Your task to perform on an android device: Open Reddit.com Image 0: 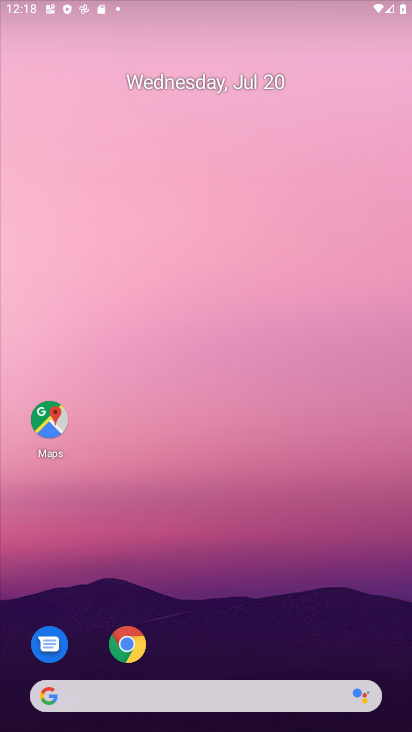
Step 0: drag from (304, 631) to (290, 34)
Your task to perform on an android device: Open Reddit.com Image 1: 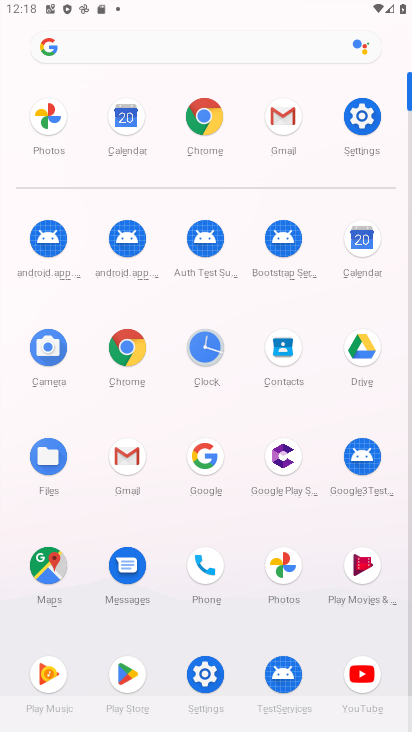
Step 1: click (138, 362)
Your task to perform on an android device: Open Reddit.com Image 2: 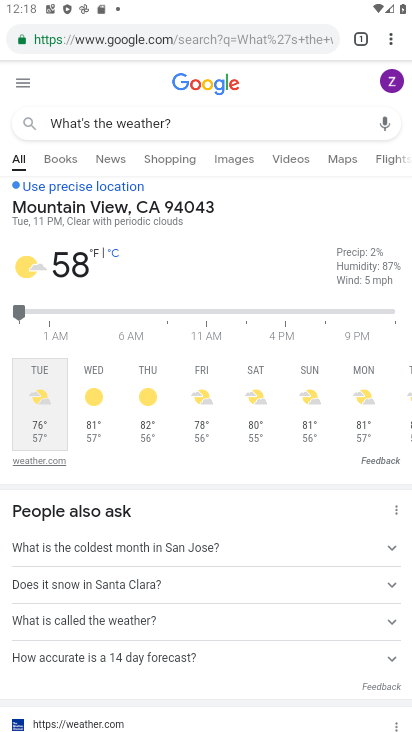
Step 2: click (196, 37)
Your task to perform on an android device: Open Reddit.com Image 3: 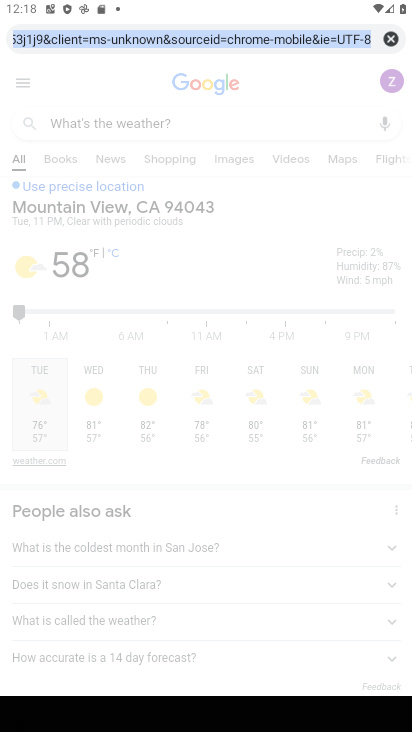
Step 3: click (196, 37)
Your task to perform on an android device: Open Reddit.com Image 4: 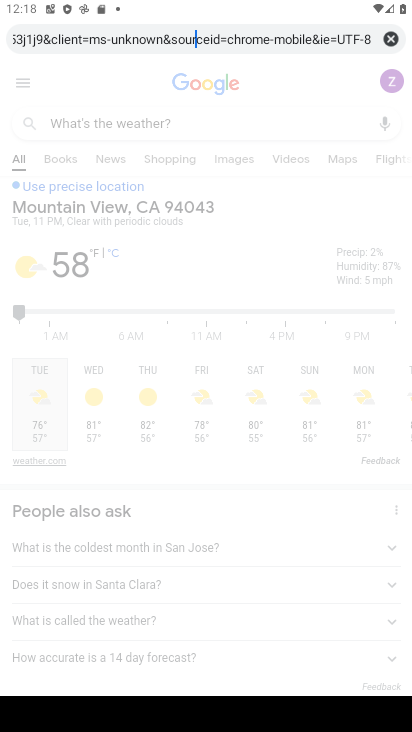
Step 4: click (393, 43)
Your task to perform on an android device: Open Reddit.com Image 5: 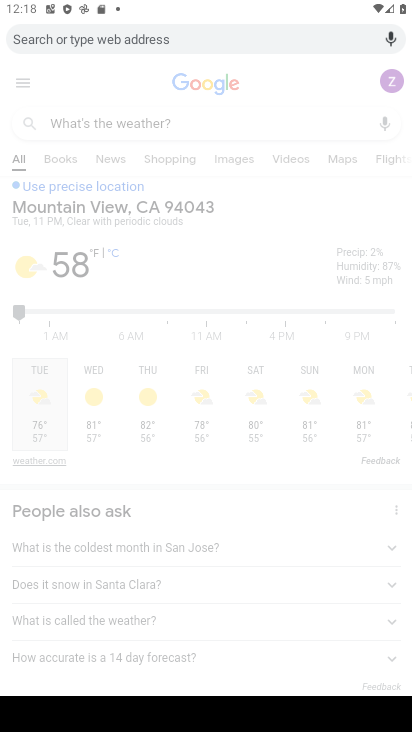
Step 5: type "Reddit.com"
Your task to perform on an android device: Open Reddit.com Image 6: 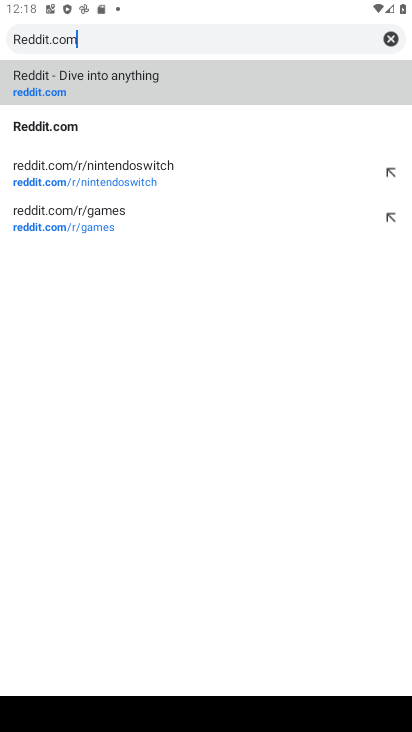
Step 6: type ""
Your task to perform on an android device: Open Reddit.com Image 7: 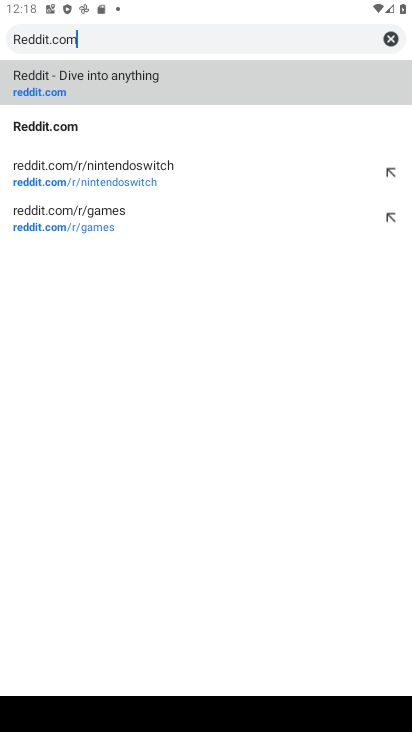
Step 7: click (156, 86)
Your task to perform on an android device: Open Reddit.com Image 8: 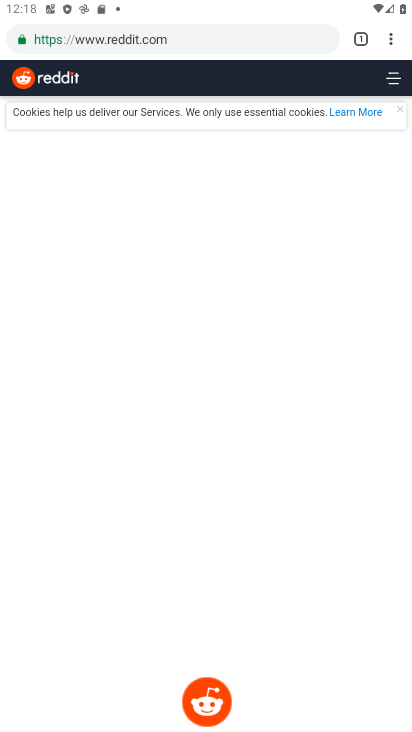
Step 8: task complete